Your task to perform on an android device: Open Google Chrome and open the bookmarks view Image 0: 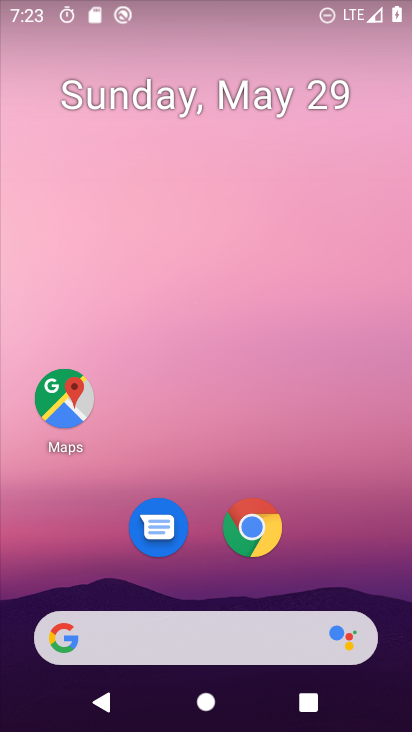
Step 0: drag from (393, 609) to (311, 40)
Your task to perform on an android device: Open Google Chrome and open the bookmarks view Image 1: 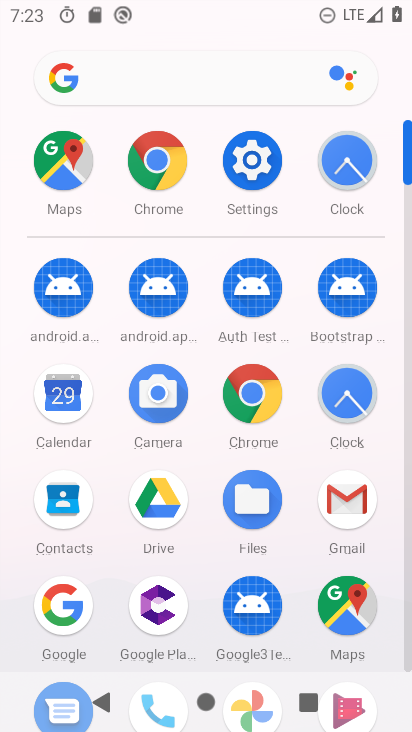
Step 1: click (154, 182)
Your task to perform on an android device: Open Google Chrome and open the bookmarks view Image 2: 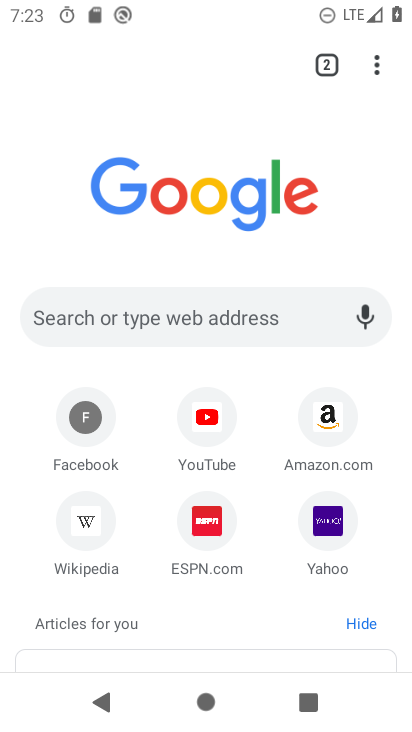
Step 2: click (372, 60)
Your task to perform on an android device: Open Google Chrome and open the bookmarks view Image 3: 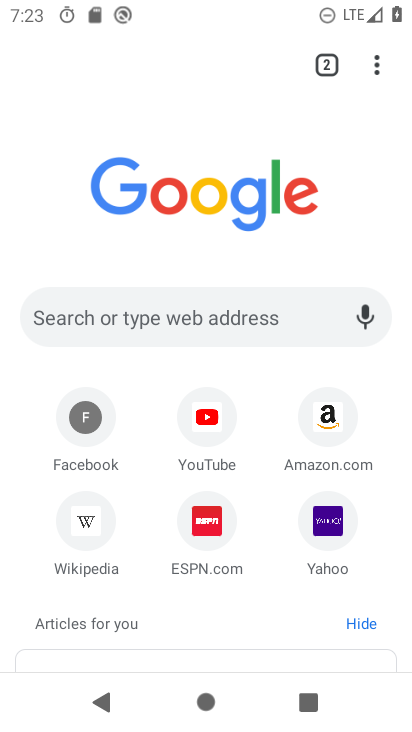
Step 3: click (378, 58)
Your task to perform on an android device: Open Google Chrome and open the bookmarks view Image 4: 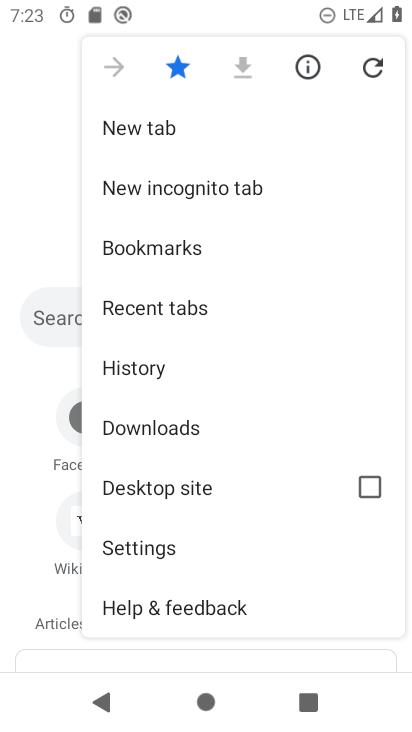
Step 4: click (192, 238)
Your task to perform on an android device: Open Google Chrome and open the bookmarks view Image 5: 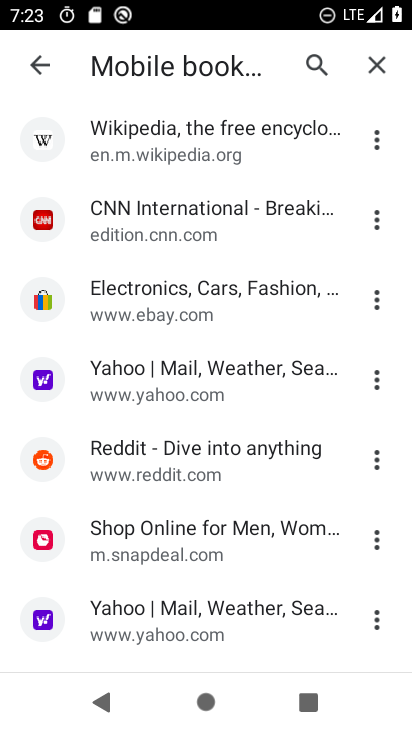
Step 5: task complete